Your task to perform on an android device: Empty the shopping cart on ebay.com. Add "lenovo thinkpad" to the cart on ebay.com, then select checkout. Image 0: 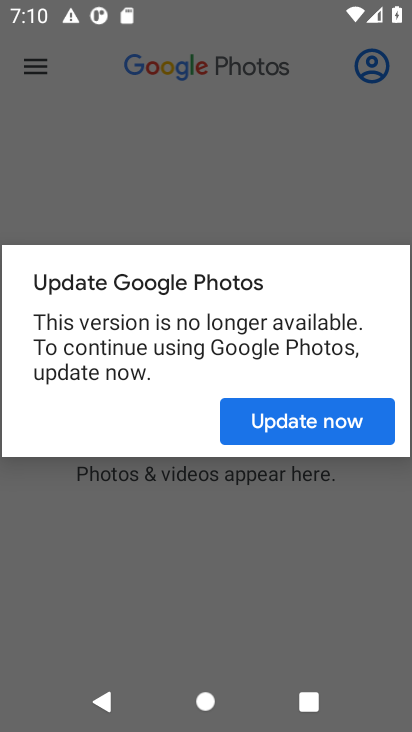
Step 0: task impossible